Your task to perform on an android device: Open internet settings Image 0: 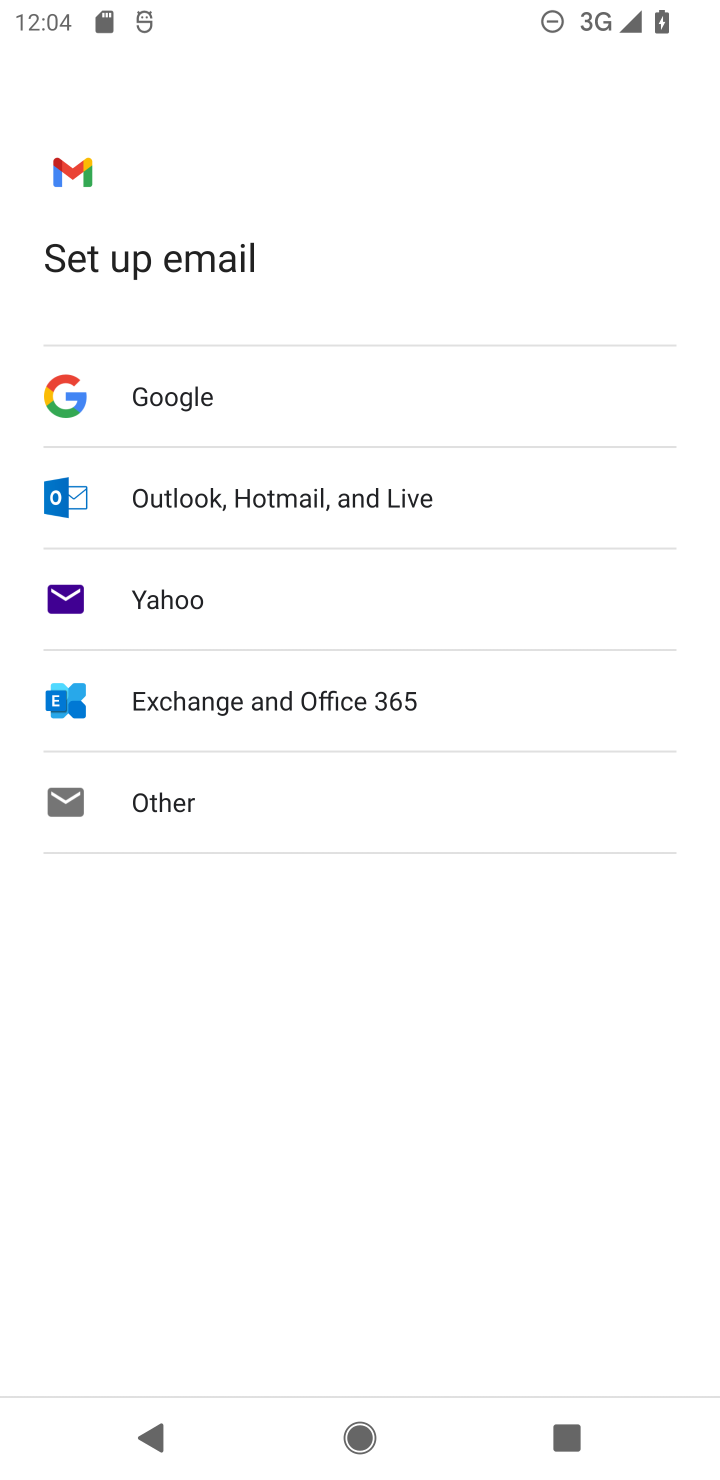
Step 0: press home button
Your task to perform on an android device: Open internet settings Image 1: 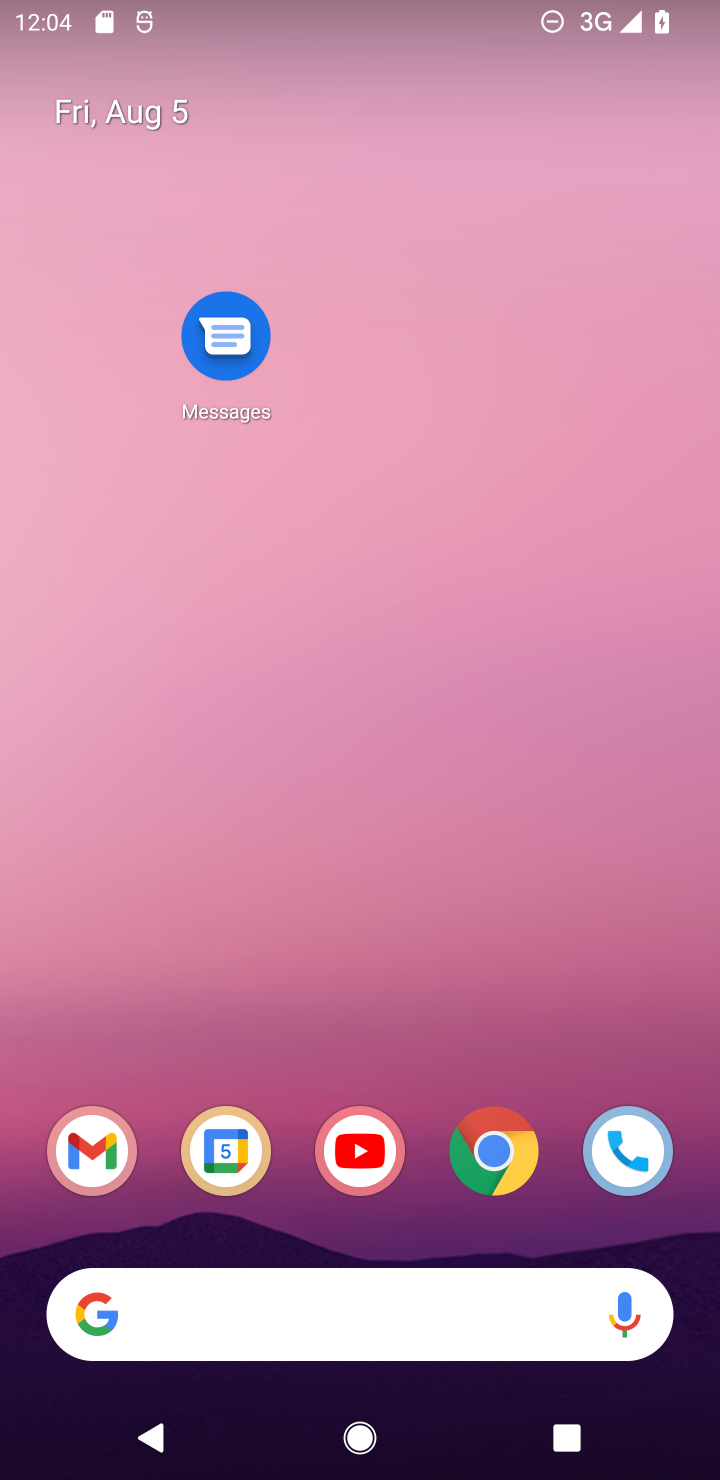
Step 1: drag from (320, 1026) to (334, 305)
Your task to perform on an android device: Open internet settings Image 2: 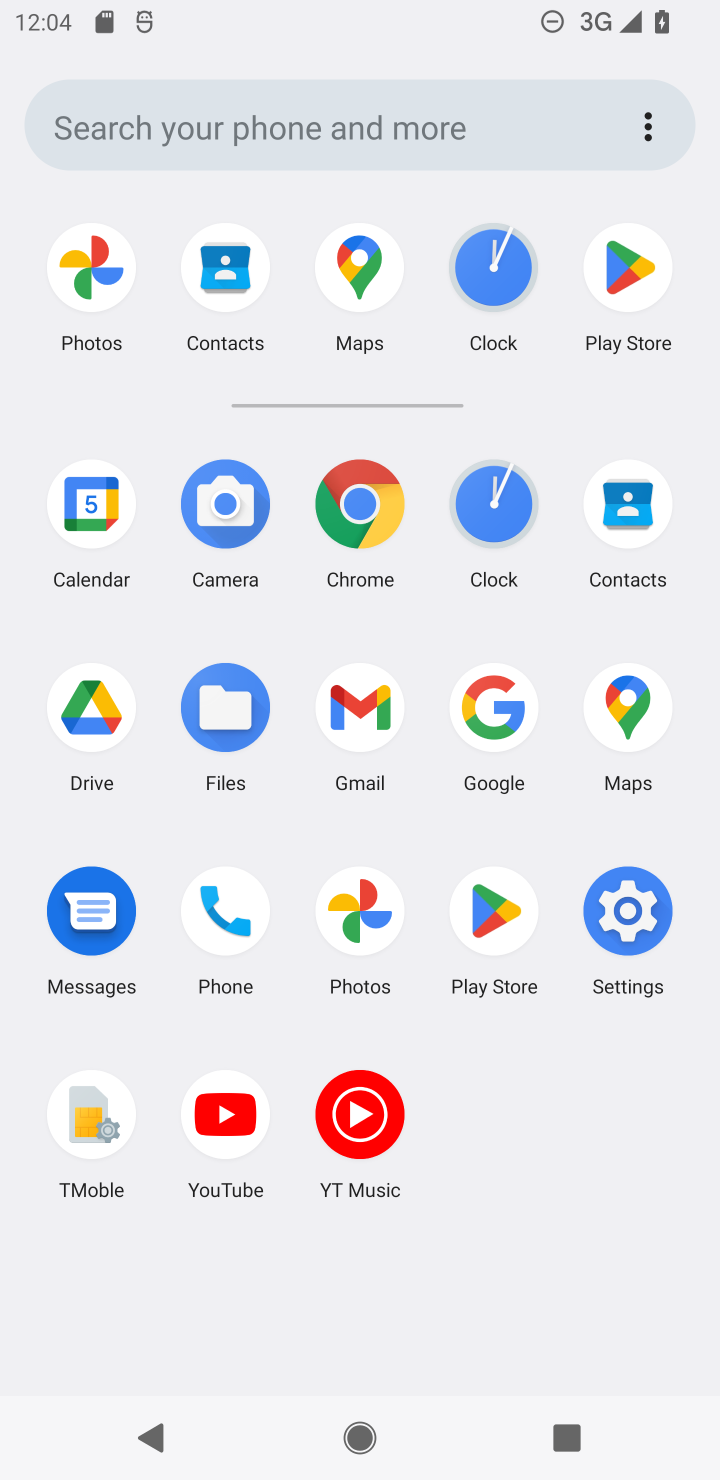
Step 2: click (616, 914)
Your task to perform on an android device: Open internet settings Image 3: 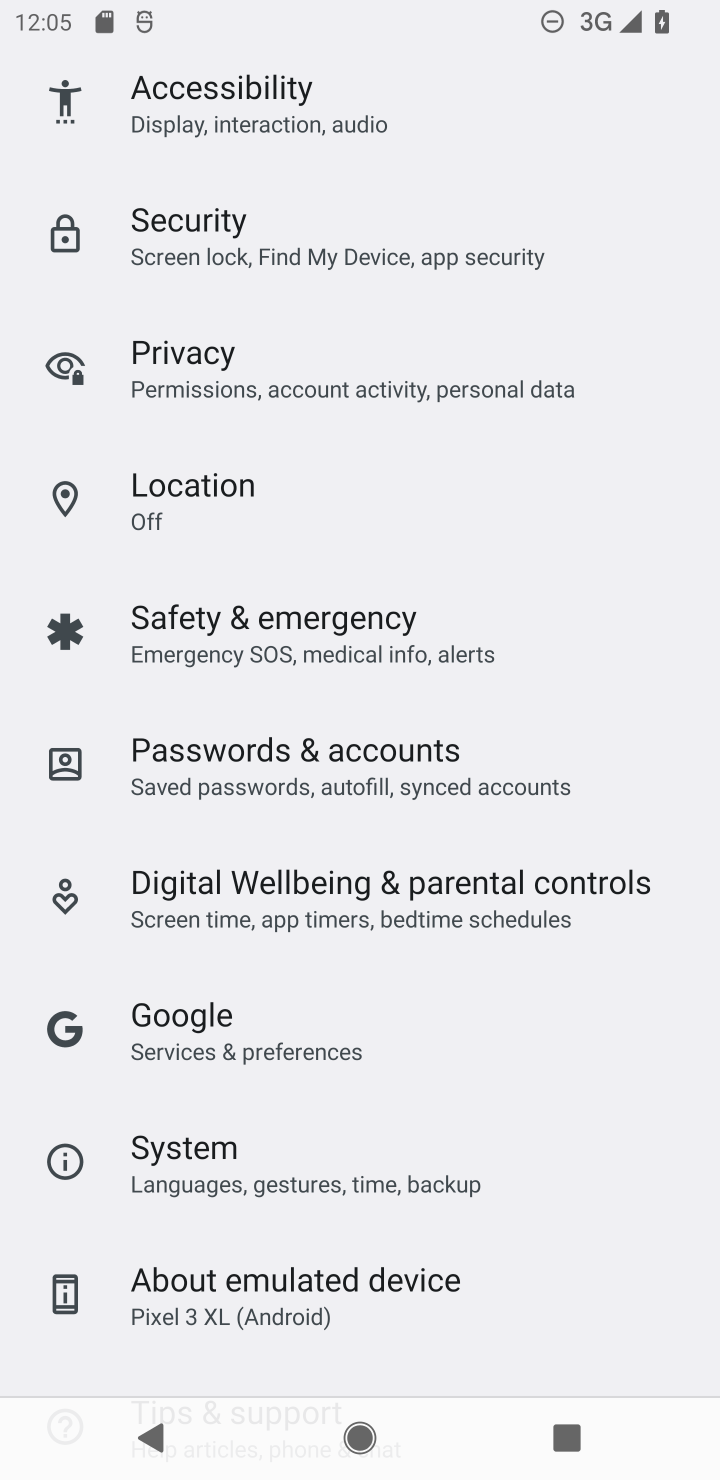
Step 3: drag from (473, 700) to (403, 1405)
Your task to perform on an android device: Open internet settings Image 4: 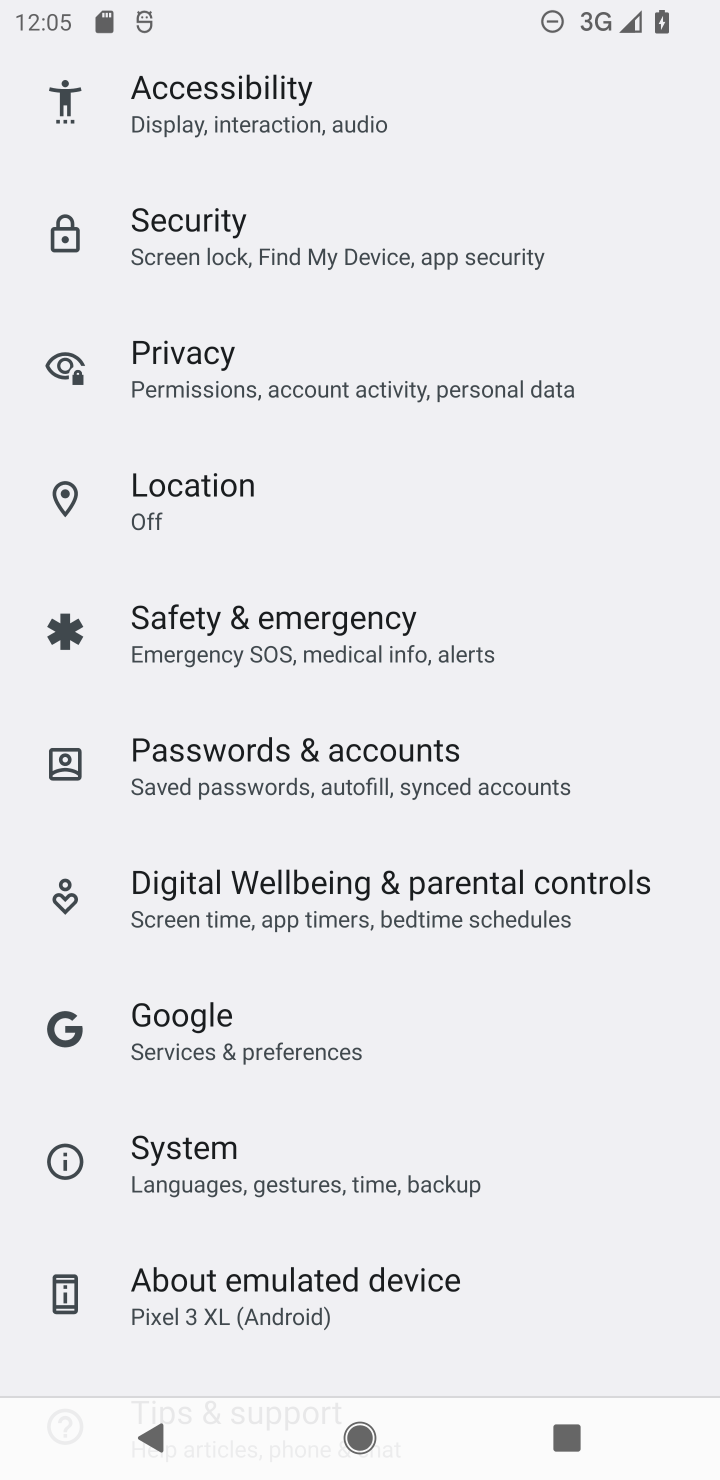
Step 4: drag from (215, 293) to (210, 1345)
Your task to perform on an android device: Open internet settings Image 5: 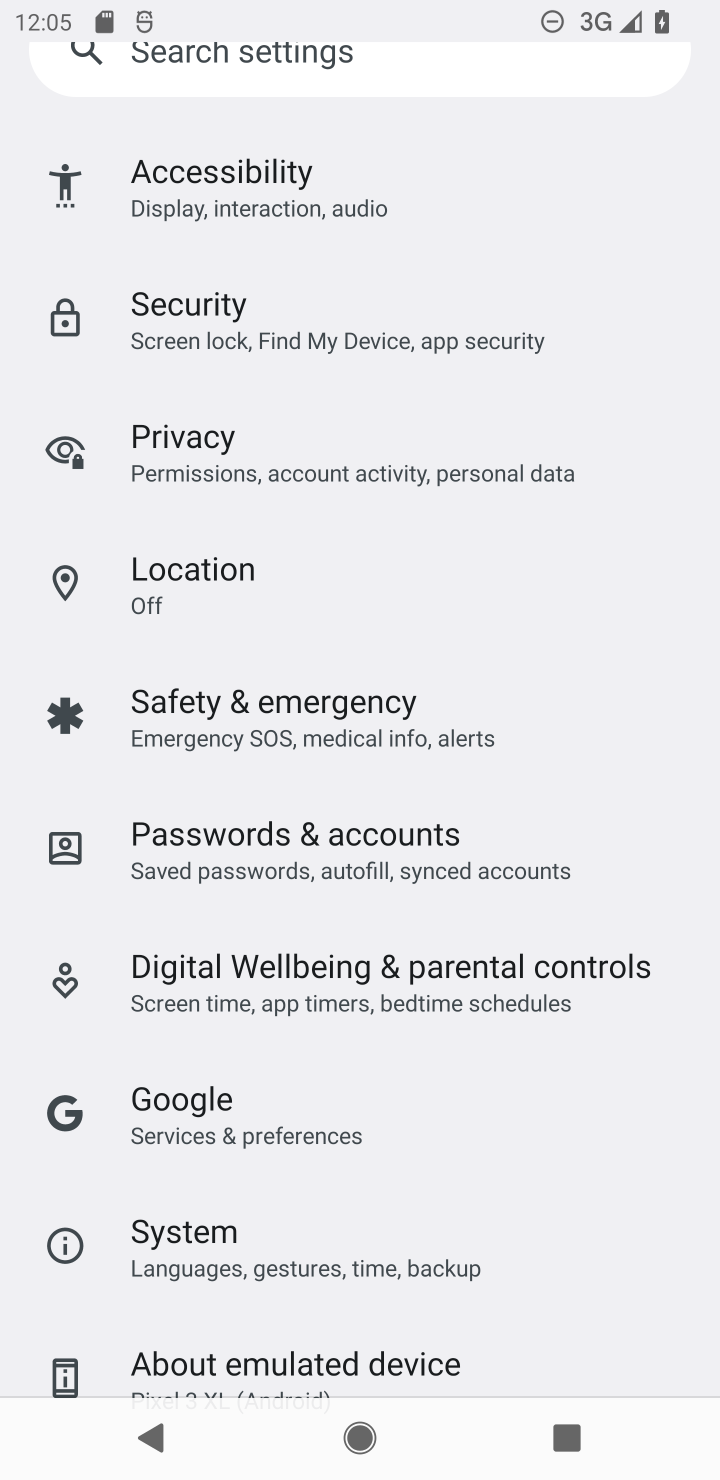
Step 5: drag from (389, 425) to (265, 1367)
Your task to perform on an android device: Open internet settings Image 6: 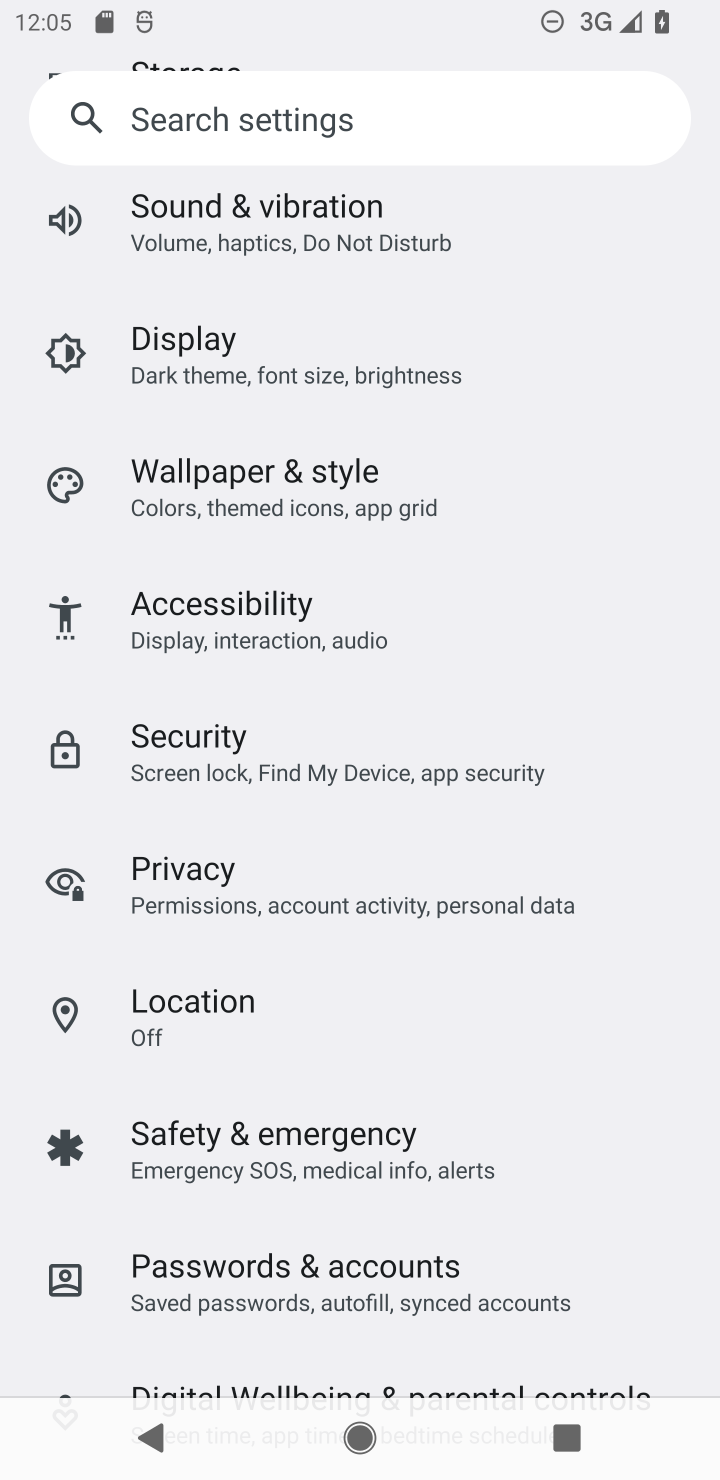
Step 6: drag from (493, 567) to (280, 1252)
Your task to perform on an android device: Open internet settings Image 7: 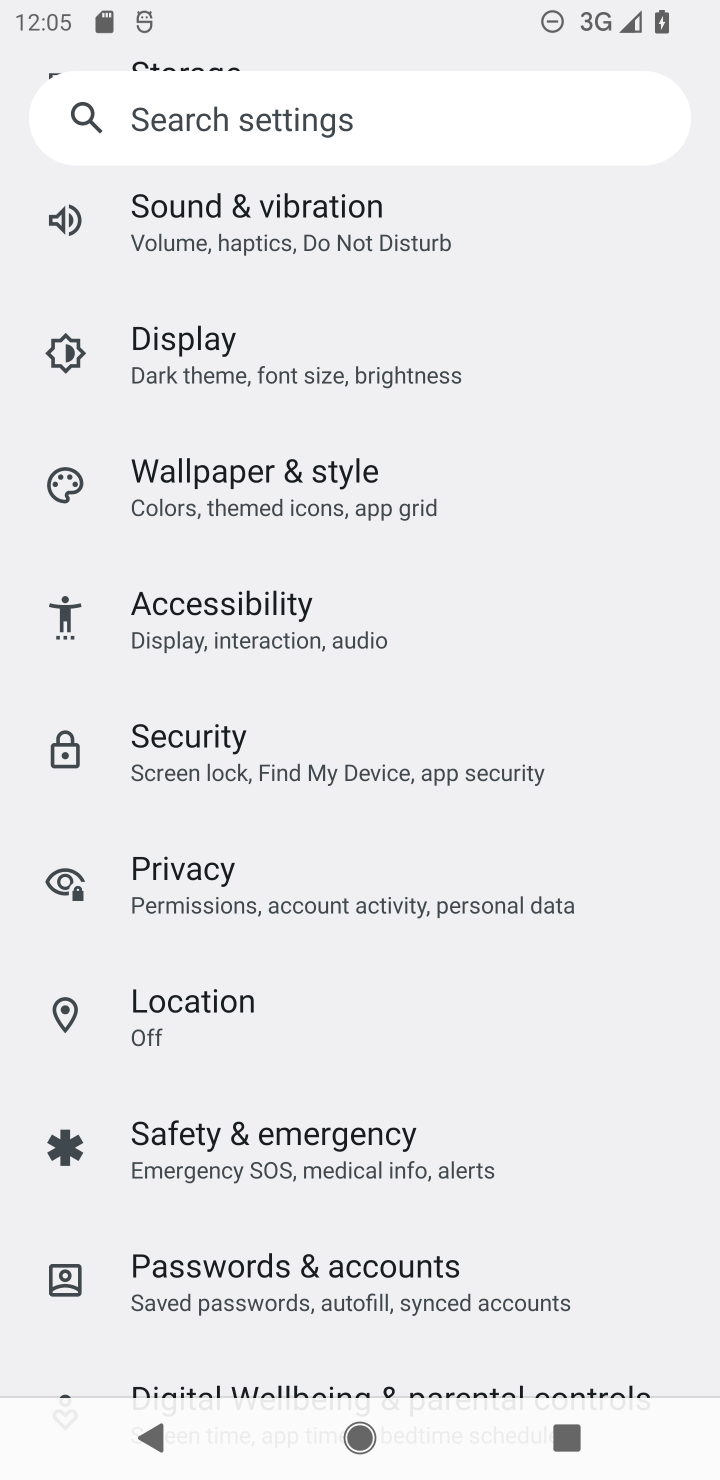
Step 7: drag from (241, 357) to (234, 802)
Your task to perform on an android device: Open internet settings Image 8: 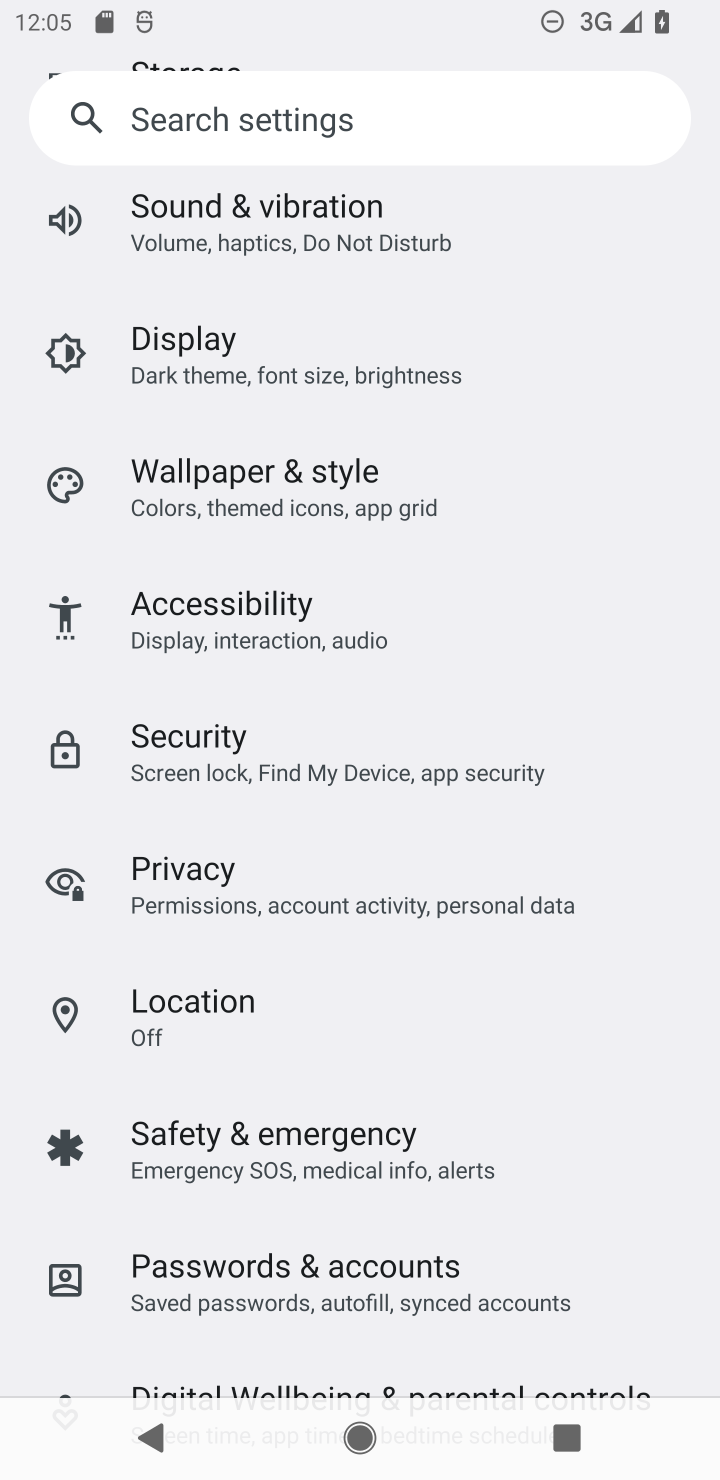
Step 8: drag from (433, 311) to (314, 1017)
Your task to perform on an android device: Open internet settings Image 9: 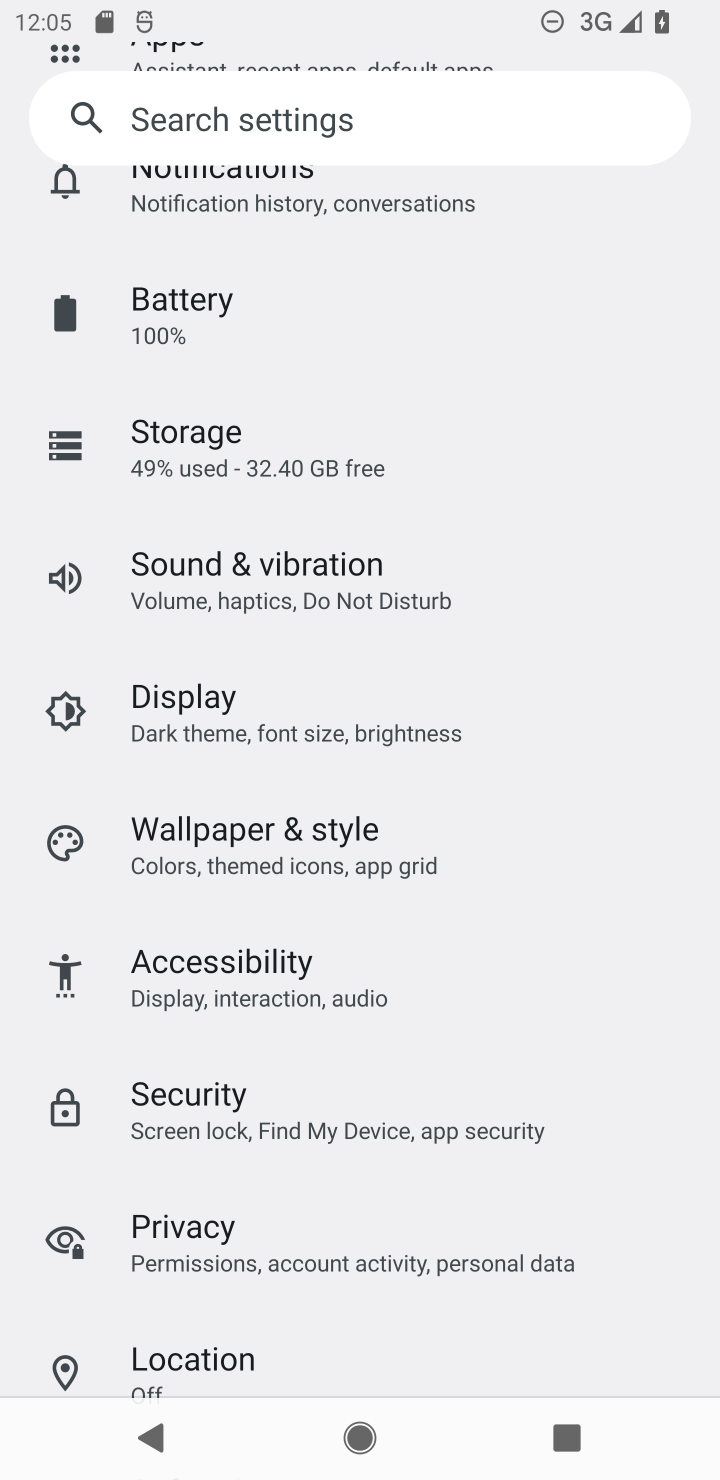
Step 9: drag from (394, 267) to (341, 1272)
Your task to perform on an android device: Open internet settings Image 10: 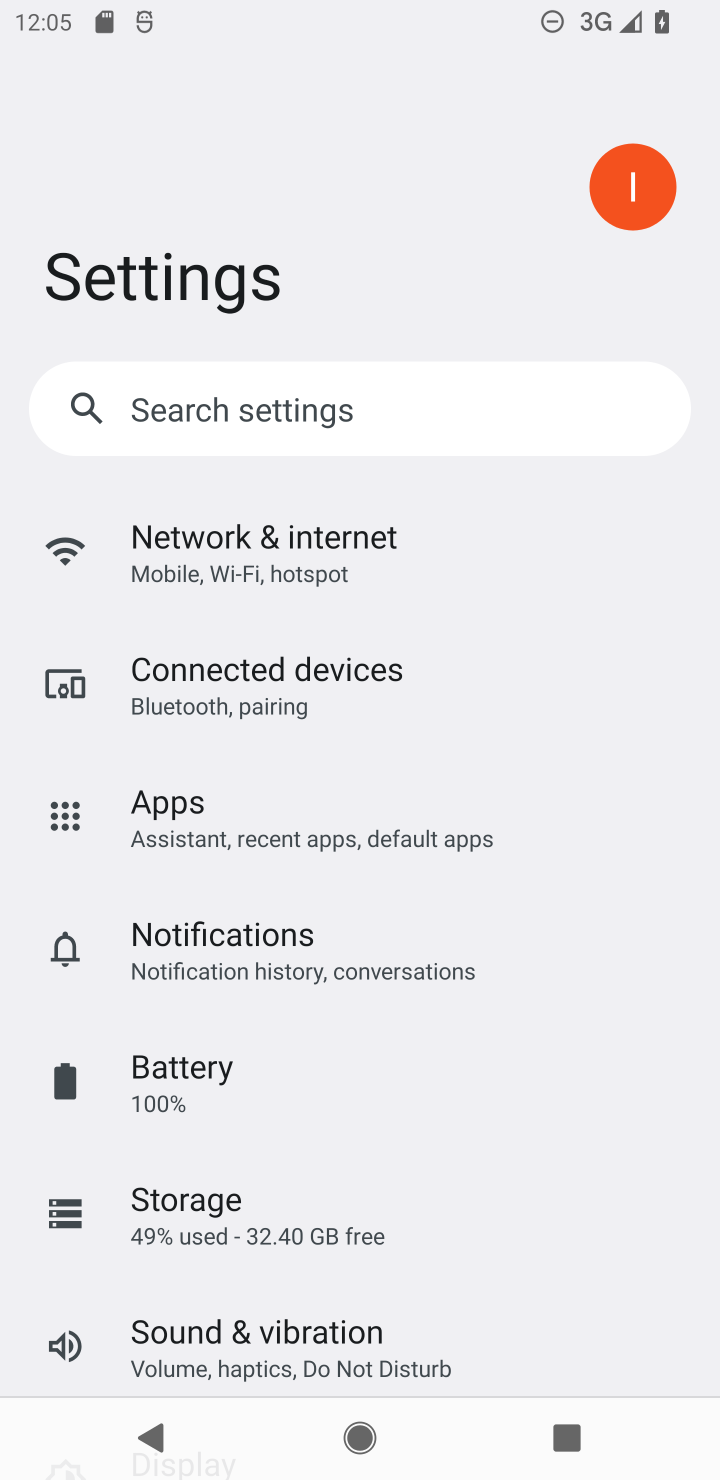
Step 10: click (285, 525)
Your task to perform on an android device: Open internet settings Image 11: 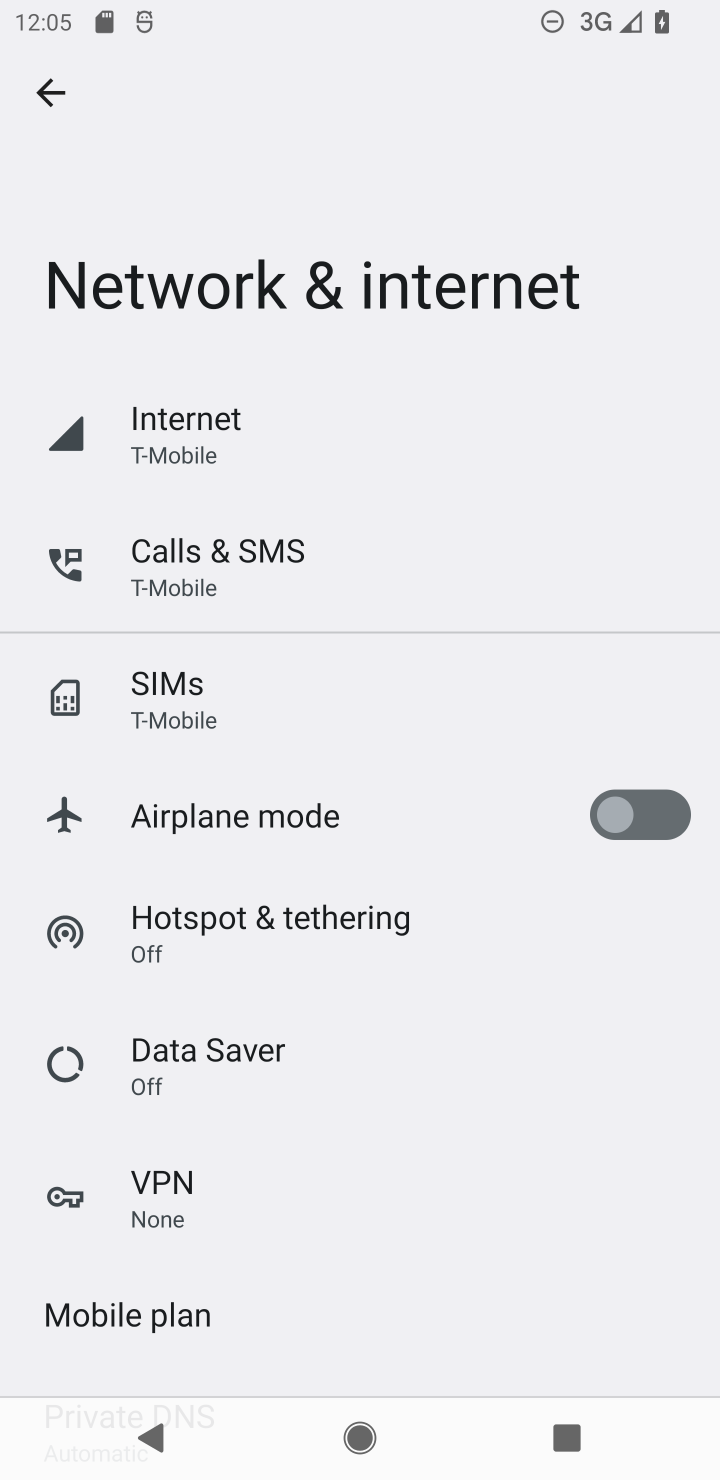
Step 11: task complete